Your task to perform on an android device: Open Google Chrome Image 0: 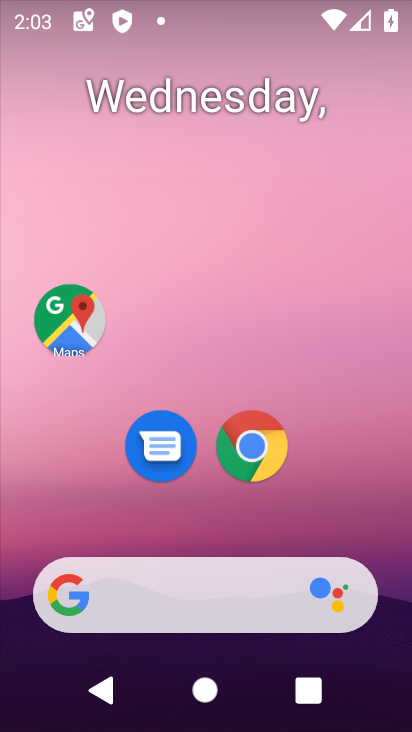
Step 0: click (261, 445)
Your task to perform on an android device: Open Google Chrome Image 1: 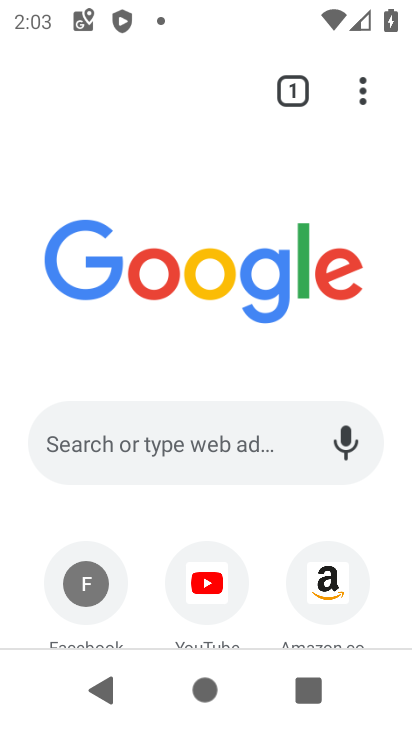
Step 1: task complete